Your task to perform on an android device: allow notifications from all sites in the chrome app Image 0: 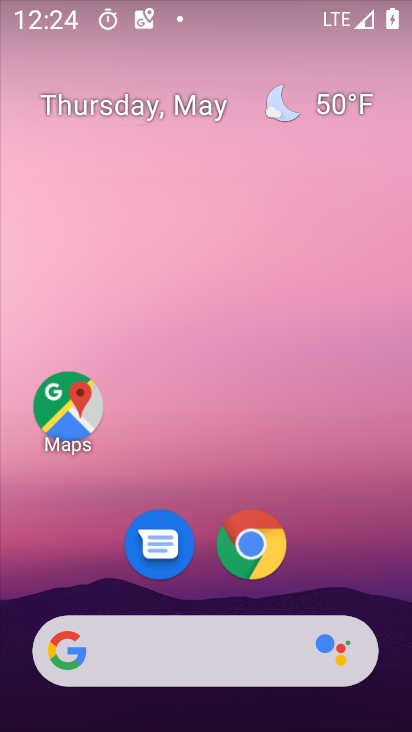
Step 0: click (242, 566)
Your task to perform on an android device: allow notifications from all sites in the chrome app Image 1: 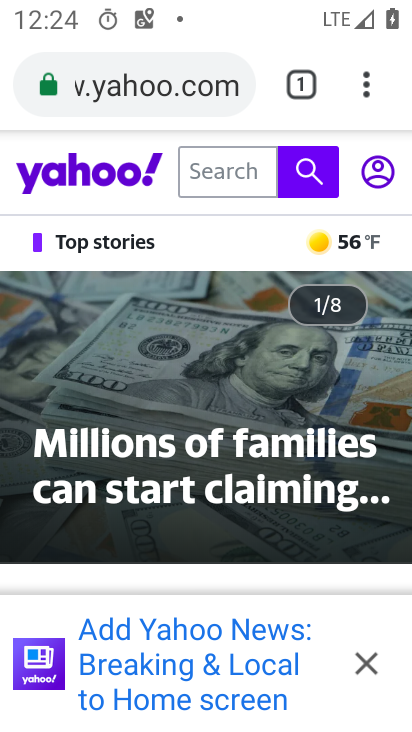
Step 1: drag from (366, 87) to (118, 591)
Your task to perform on an android device: allow notifications from all sites in the chrome app Image 2: 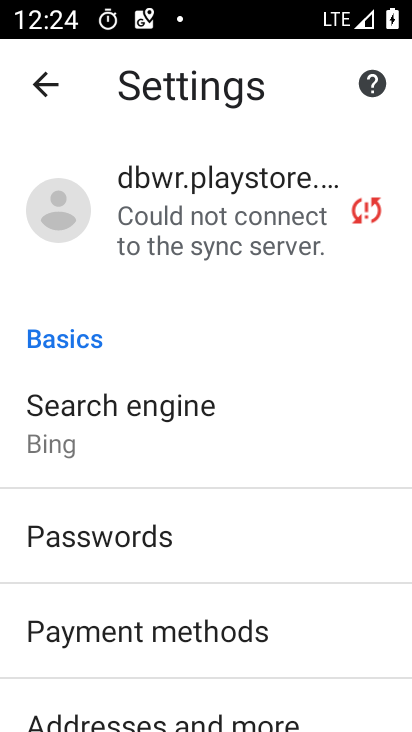
Step 2: drag from (144, 536) to (95, 61)
Your task to perform on an android device: allow notifications from all sites in the chrome app Image 3: 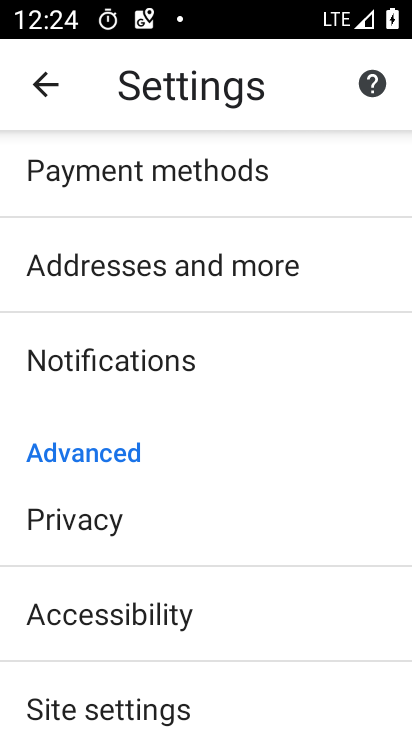
Step 3: click (143, 689)
Your task to perform on an android device: allow notifications from all sites in the chrome app Image 4: 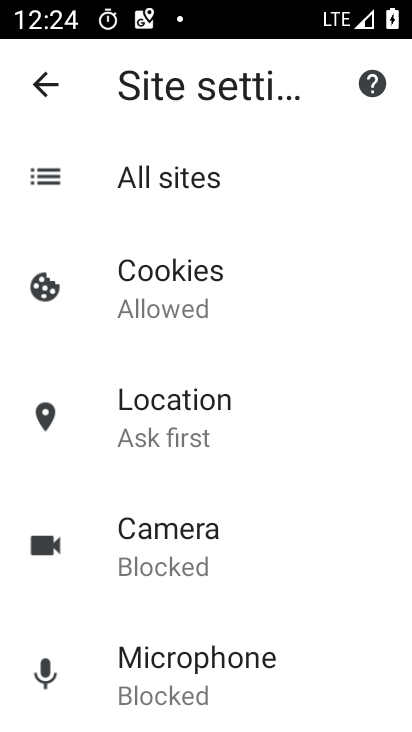
Step 4: drag from (252, 592) to (237, 24)
Your task to perform on an android device: allow notifications from all sites in the chrome app Image 5: 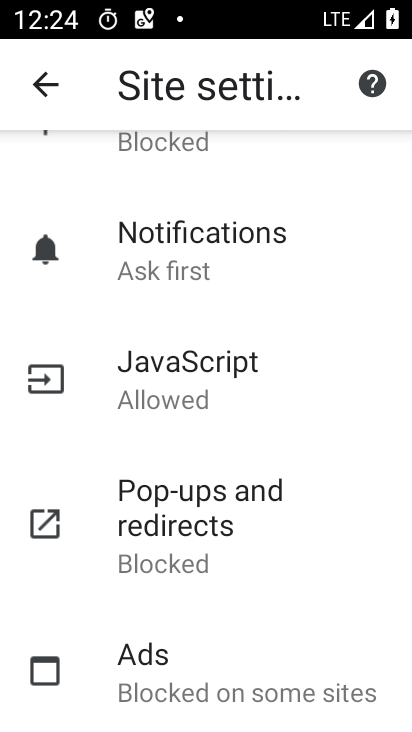
Step 5: click (173, 273)
Your task to perform on an android device: allow notifications from all sites in the chrome app Image 6: 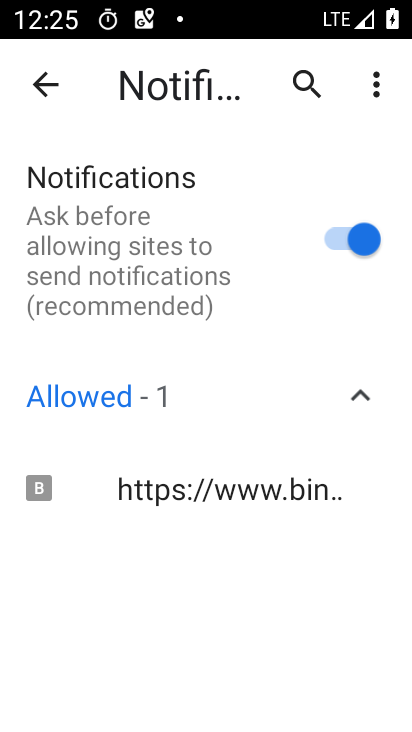
Step 6: task complete